Your task to perform on an android device: turn off data saver in the chrome app Image 0: 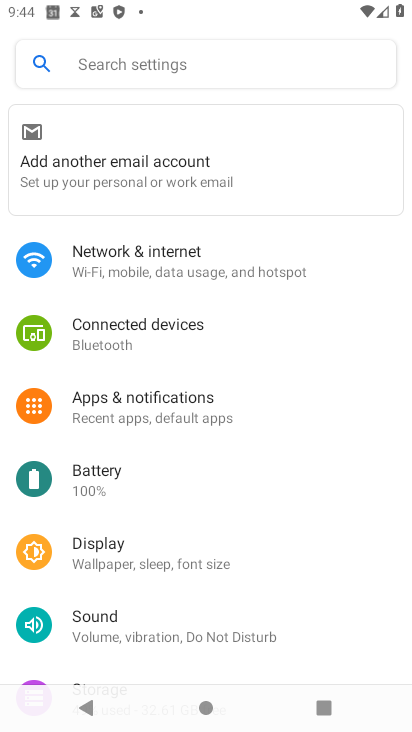
Step 0: press home button
Your task to perform on an android device: turn off data saver in the chrome app Image 1: 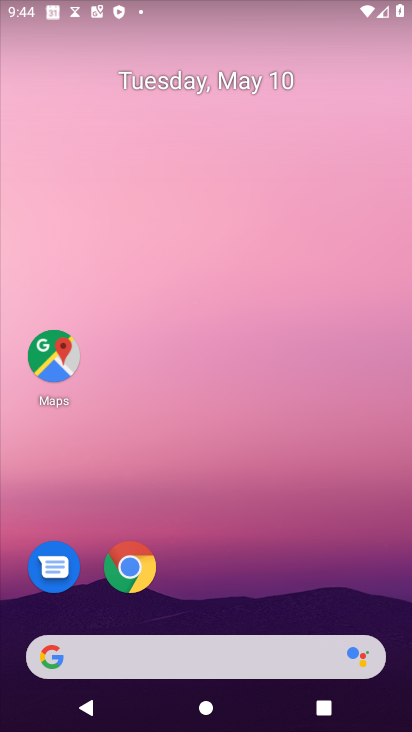
Step 1: click (127, 558)
Your task to perform on an android device: turn off data saver in the chrome app Image 2: 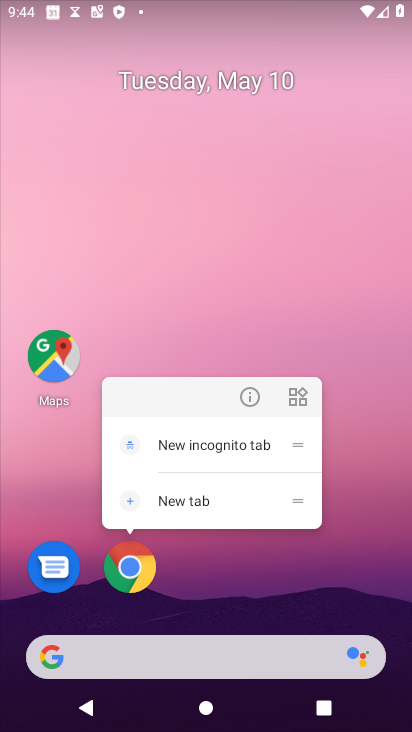
Step 2: click (218, 600)
Your task to perform on an android device: turn off data saver in the chrome app Image 3: 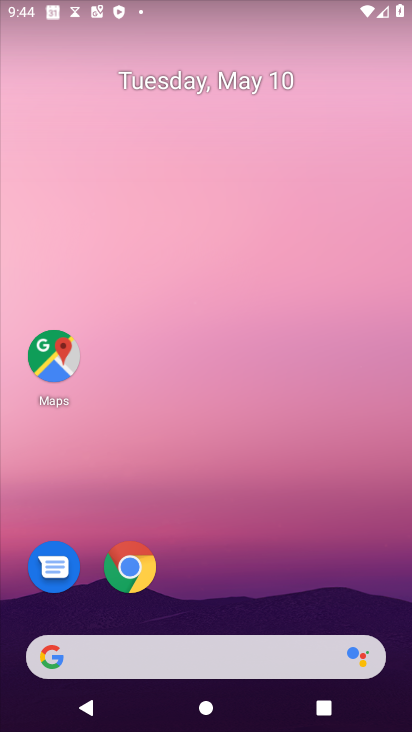
Step 3: click (134, 560)
Your task to perform on an android device: turn off data saver in the chrome app Image 4: 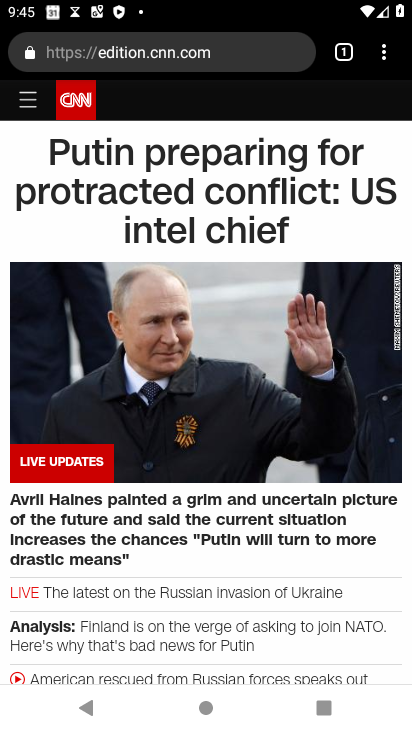
Step 4: click (380, 51)
Your task to perform on an android device: turn off data saver in the chrome app Image 5: 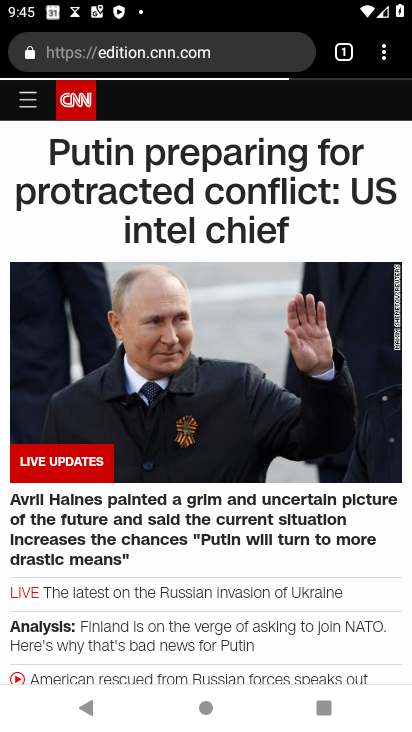
Step 5: click (374, 52)
Your task to perform on an android device: turn off data saver in the chrome app Image 6: 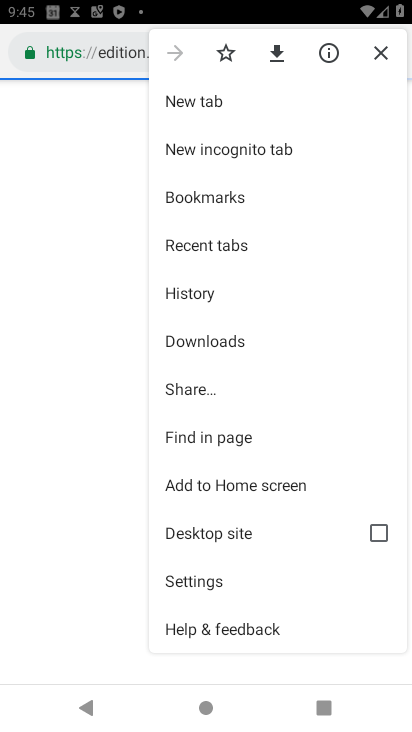
Step 6: click (191, 568)
Your task to perform on an android device: turn off data saver in the chrome app Image 7: 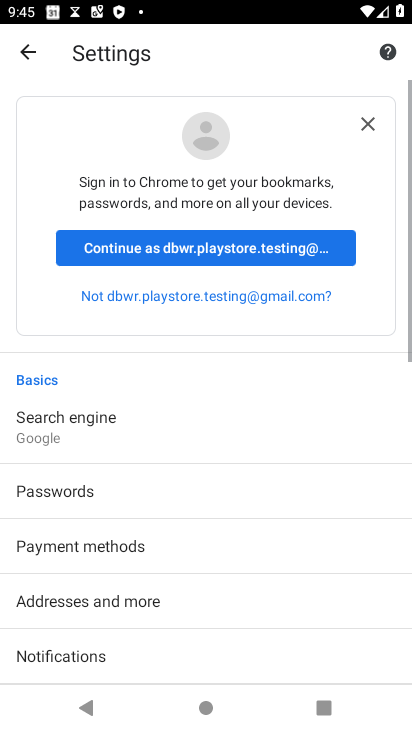
Step 7: drag from (133, 658) to (237, 187)
Your task to perform on an android device: turn off data saver in the chrome app Image 8: 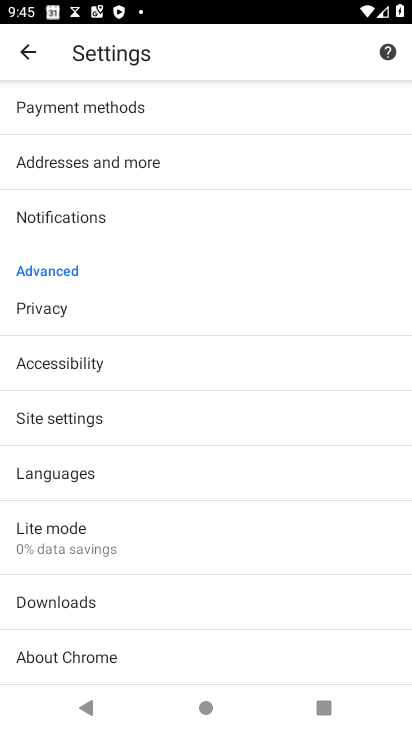
Step 8: click (112, 554)
Your task to perform on an android device: turn off data saver in the chrome app Image 9: 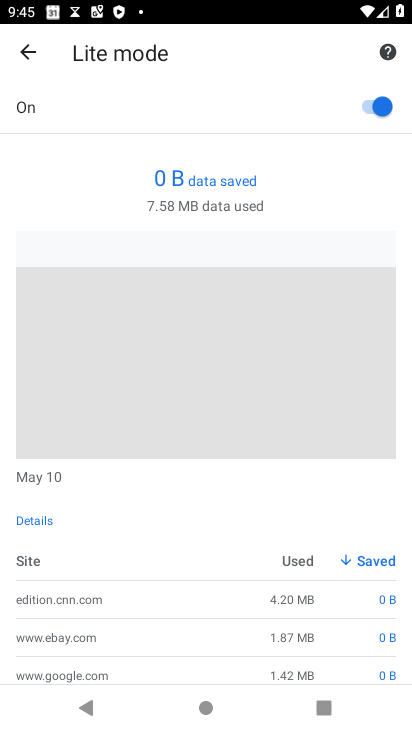
Step 9: click (364, 103)
Your task to perform on an android device: turn off data saver in the chrome app Image 10: 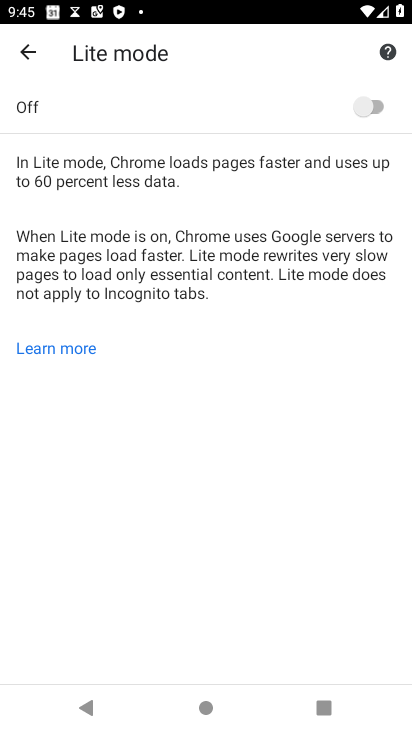
Step 10: task complete